Your task to perform on an android device: View the shopping cart on target. Add "macbook pro 13 inch" to the cart on target, then select checkout. Image 0: 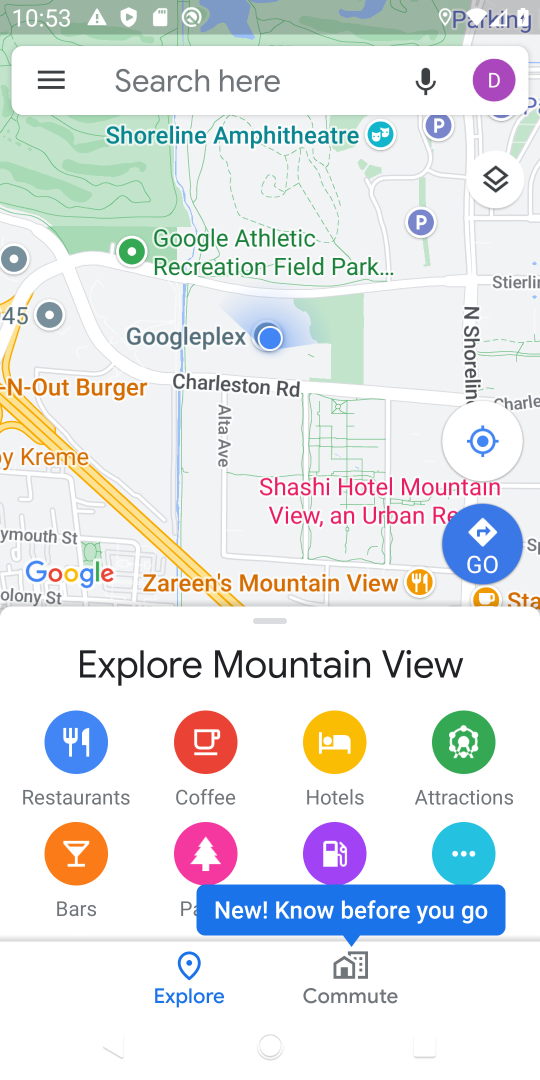
Step 0: press home button
Your task to perform on an android device: View the shopping cart on target. Add "macbook pro 13 inch" to the cart on target, then select checkout. Image 1: 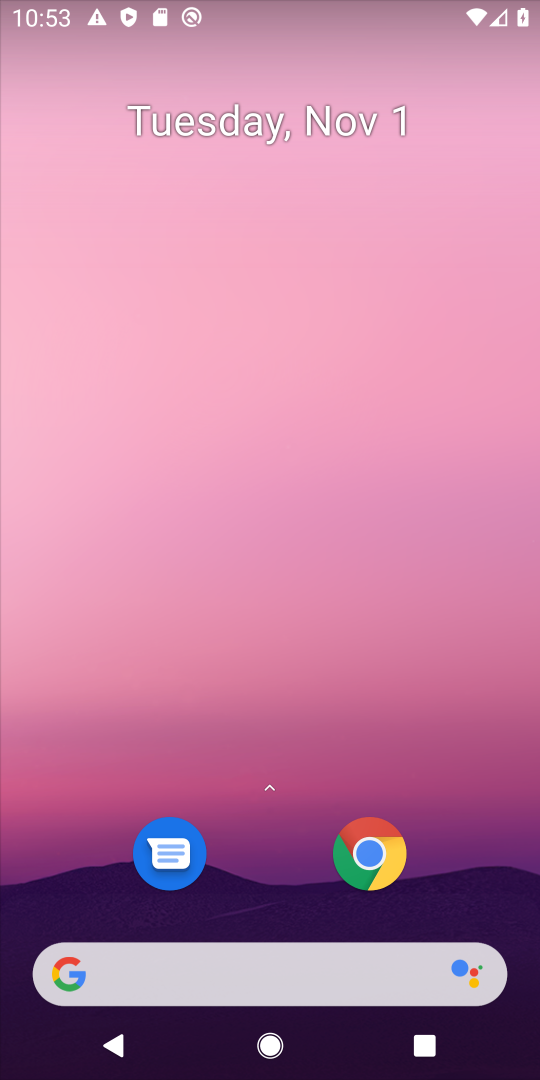
Step 1: click (336, 964)
Your task to perform on an android device: View the shopping cart on target. Add "macbook pro 13 inch" to the cart on target, then select checkout. Image 2: 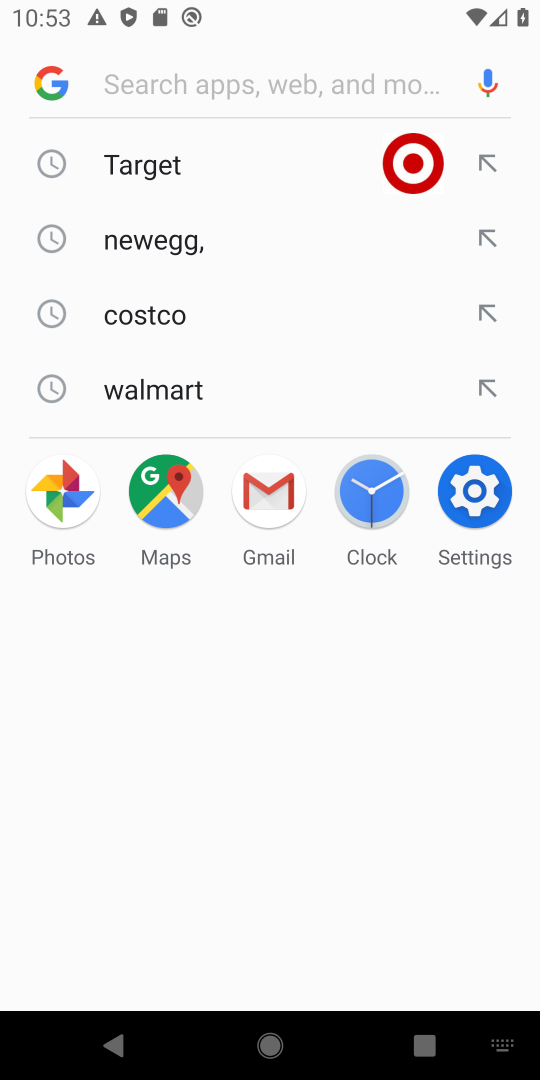
Step 2: click (218, 161)
Your task to perform on an android device: View the shopping cart on target. Add "macbook pro 13 inch" to the cart on target, then select checkout. Image 3: 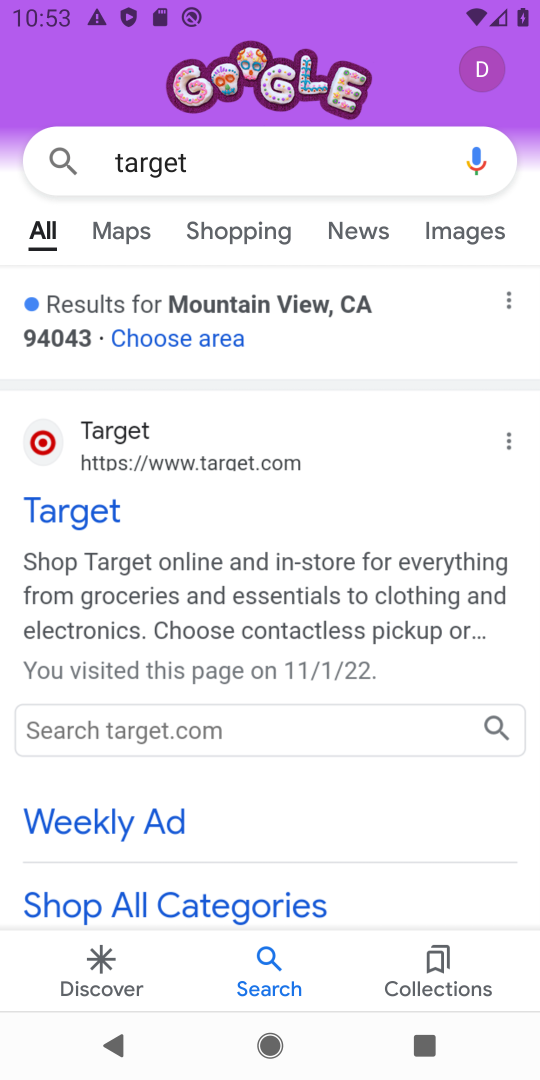
Step 3: click (146, 433)
Your task to perform on an android device: View the shopping cart on target. Add "macbook pro 13 inch" to the cart on target, then select checkout. Image 4: 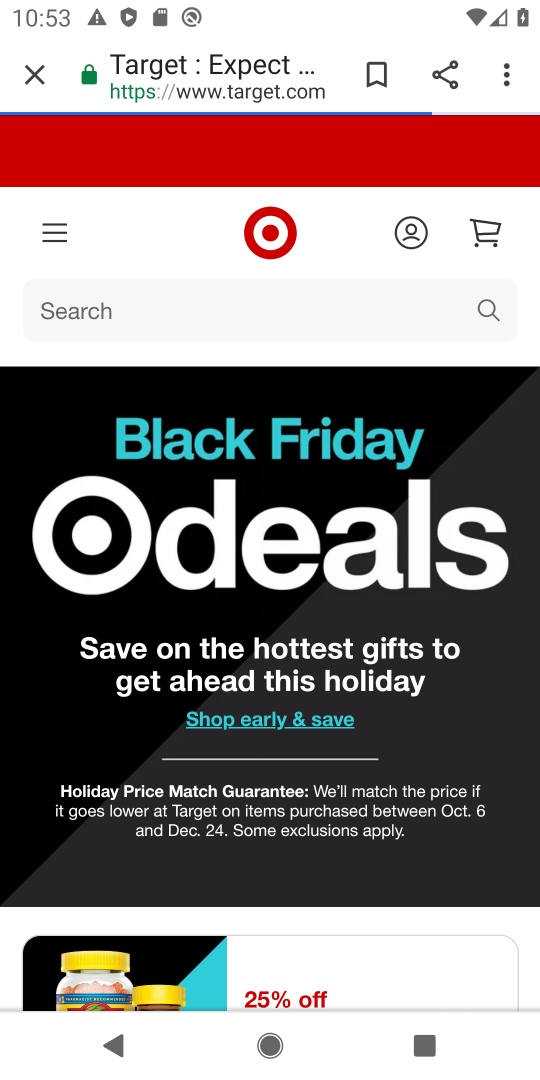
Step 4: click (229, 324)
Your task to perform on an android device: View the shopping cart on target. Add "macbook pro 13 inch" to the cart on target, then select checkout. Image 5: 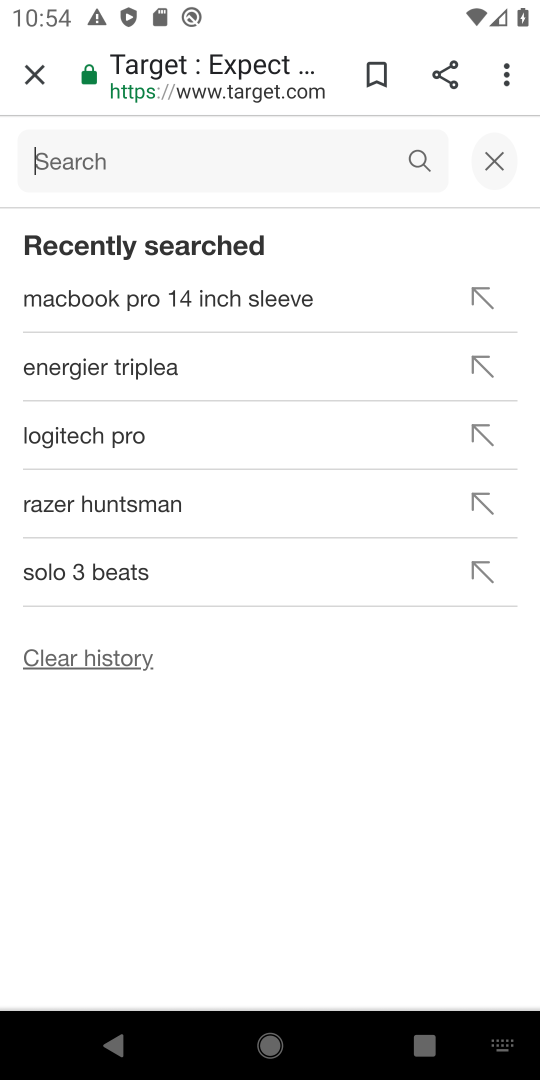
Step 5: type "macbook pro 13"
Your task to perform on an android device: View the shopping cart on target. Add "macbook pro 13 inch" to the cart on target, then select checkout. Image 6: 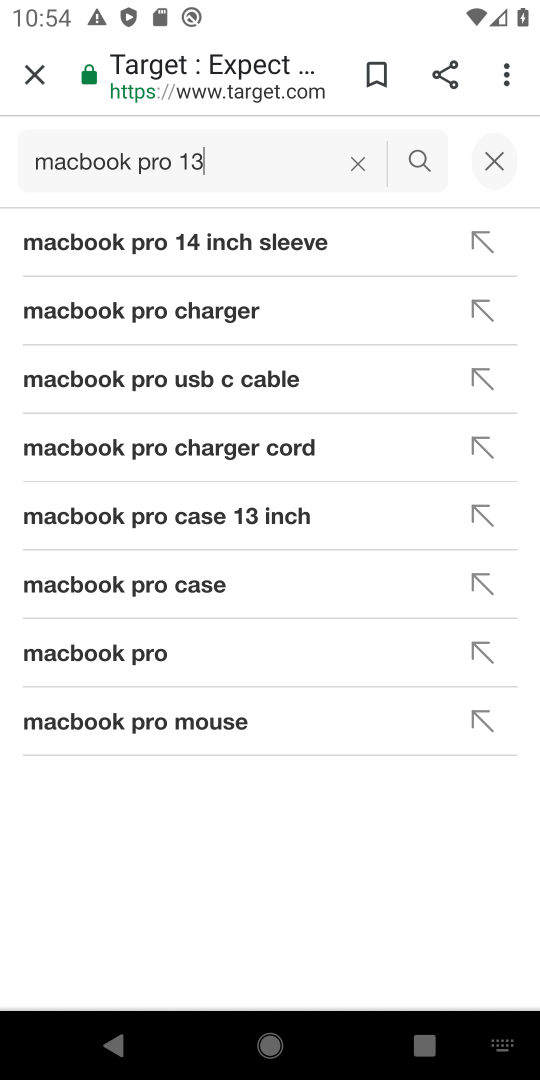
Step 6: click (246, 275)
Your task to perform on an android device: View the shopping cart on target. Add "macbook pro 13 inch" to the cart on target, then select checkout. Image 7: 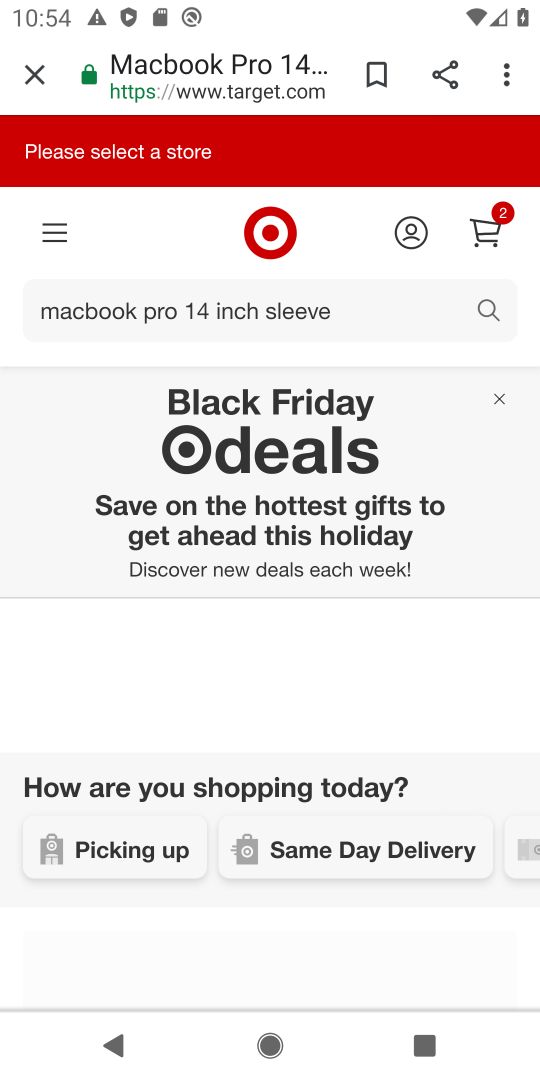
Step 7: task complete